Your task to perform on an android device: Search for "bose soundlink" on walmart, select the first entry, add it to the cart, then select checkout. Image 0: 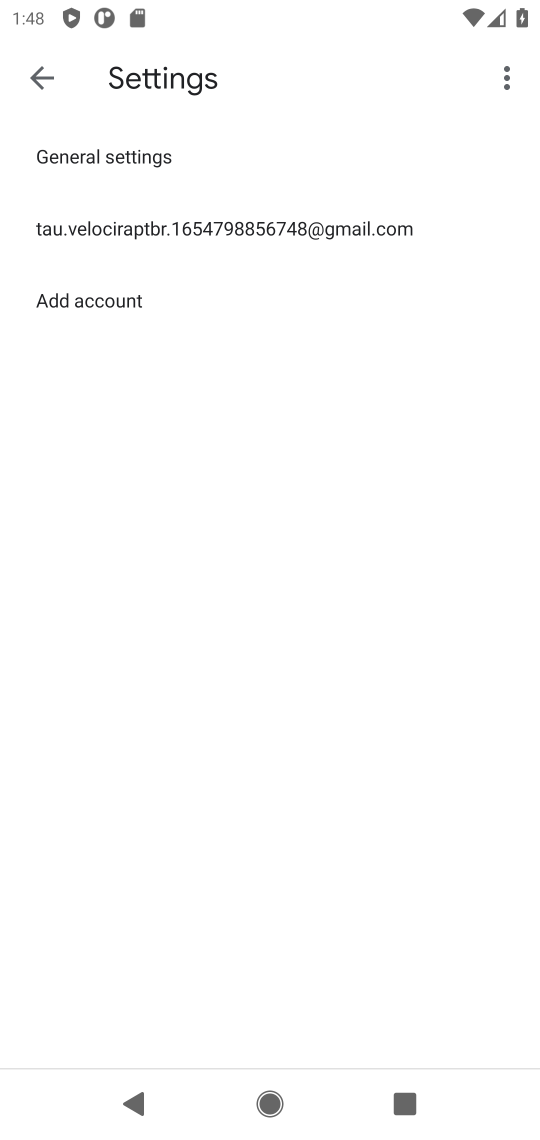
Step 0: press home button
Your task to perform on an android device: Search for "bose soundlink" on walmart, select the first entry, add it to the cart, then select checkout. Image 1: 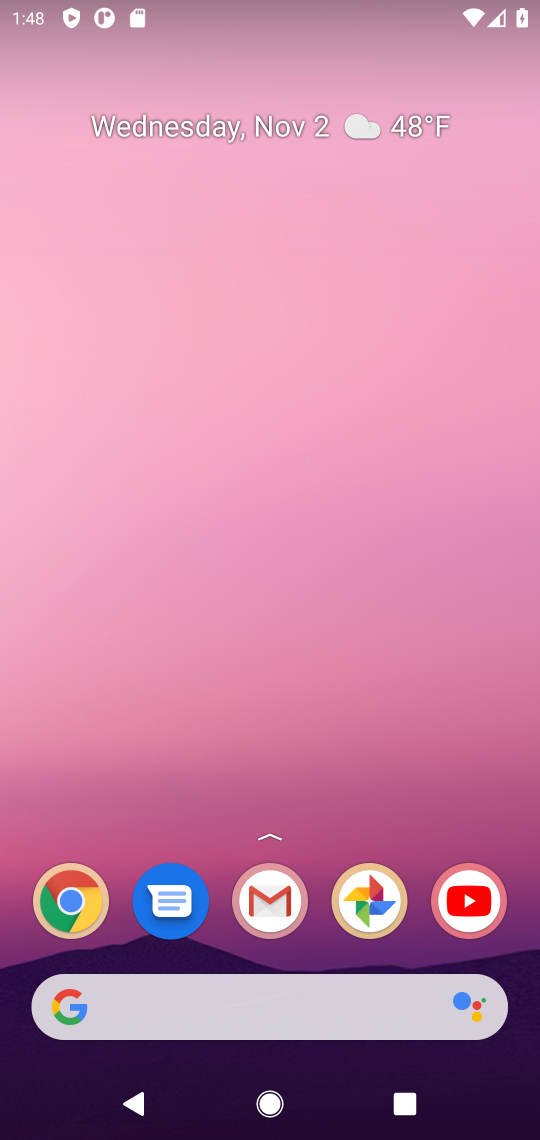
Step 1: drag from (323, 959) to (382, 126)
Your task to perform on an android device: Search for "bose soundlink" on walmart, select the first entry, add it to the cart, then select checkout. Image 2: 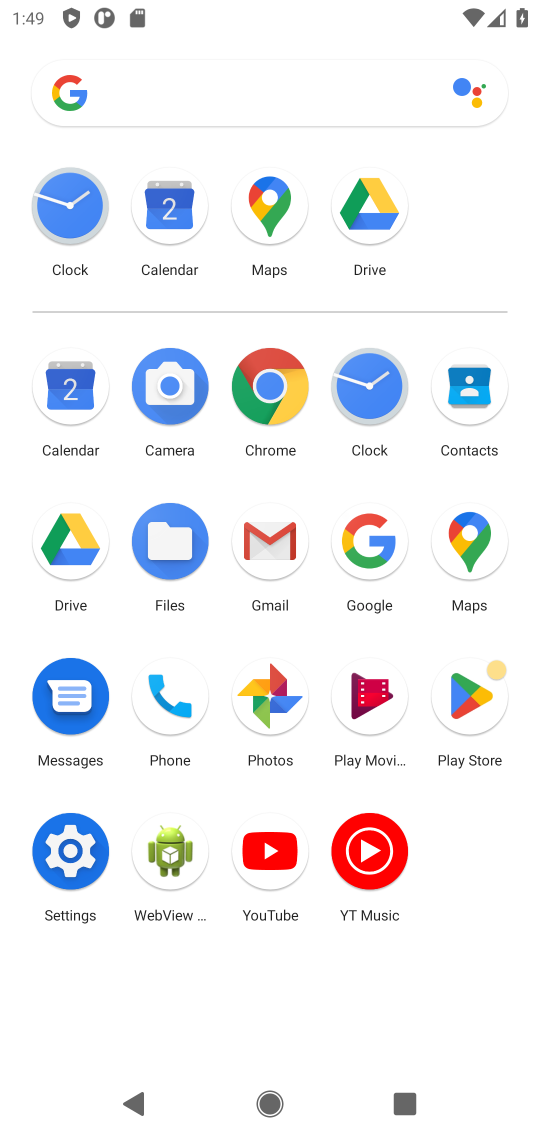
Step 2: click (275, 380)
Your task to perform on an android device: Search for "bose soundlink" on walmart, select the first entry, add it to the cart, then select checkout. Image 3: 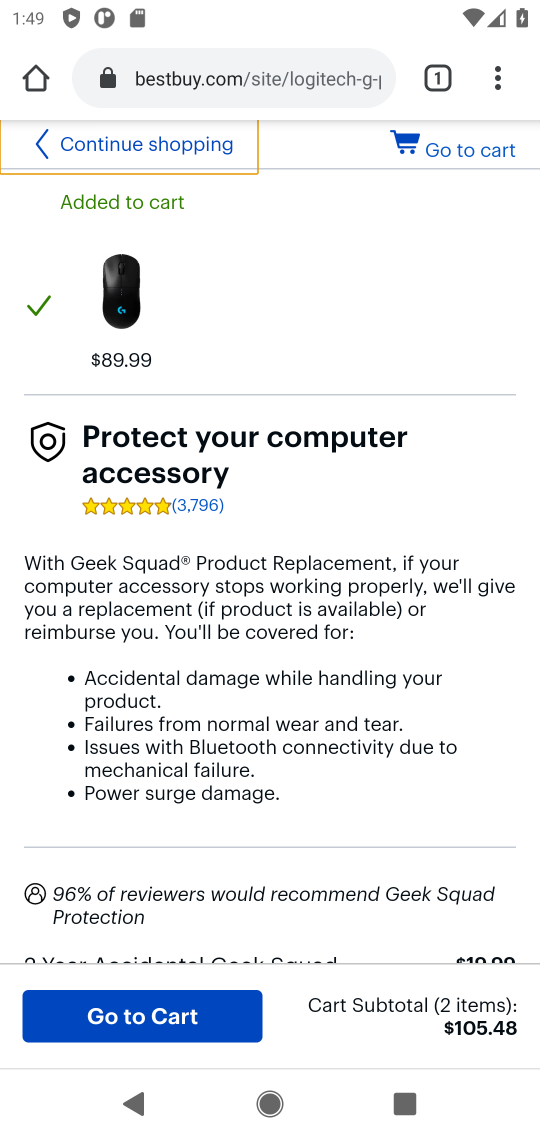
Step 3: click (262, 60)
Your task to perform on an android device: Search for "bose soundlink" on walmart, select the first entry, add it to the cart, then select checkout. Image 4: 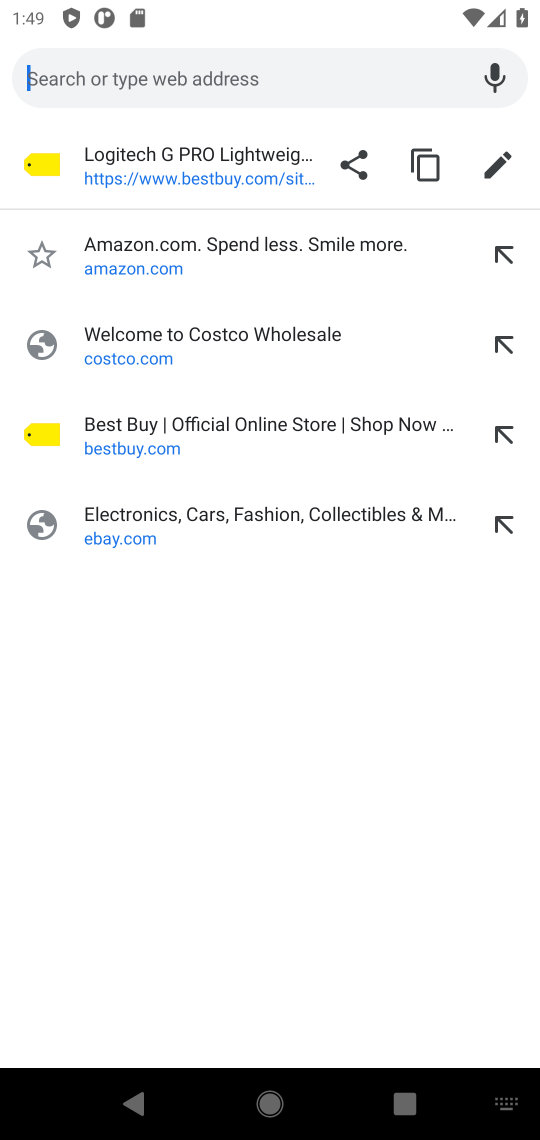
Step 4: type "walmart.com"
Your task to perform on an android device: Search for "bose soundlink" on walmart, select the first entry, add it to the cart, then select checkout. Image 5: 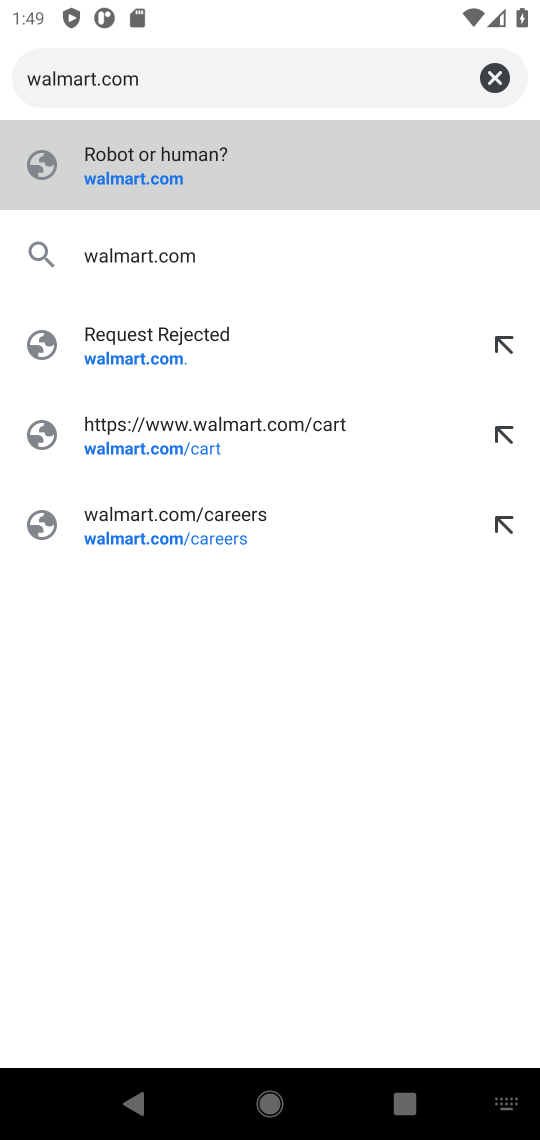
Step 5: press enter
Your task to perform on an android device: Search for "bose soundlink" on walmart, select the first entry, add it to the cart, then select checkout. Image 6: 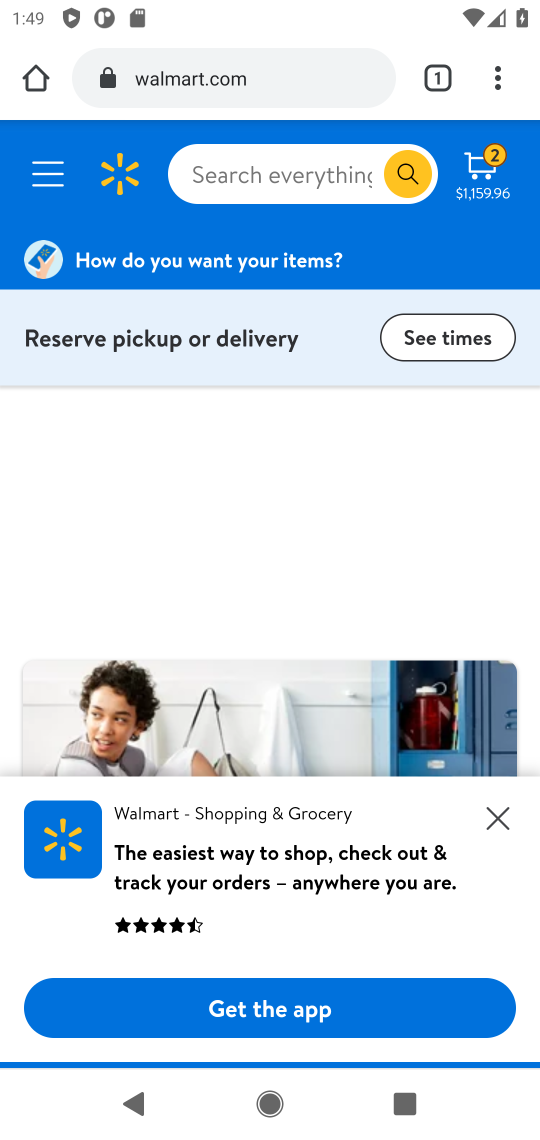
Step 6: drag from (359, 664) to (387, 156)
Your task to perform on an android device: Search for "bose soundlink" on walmart, select the first entry, add it to the cart, then select checkout. Image 7: 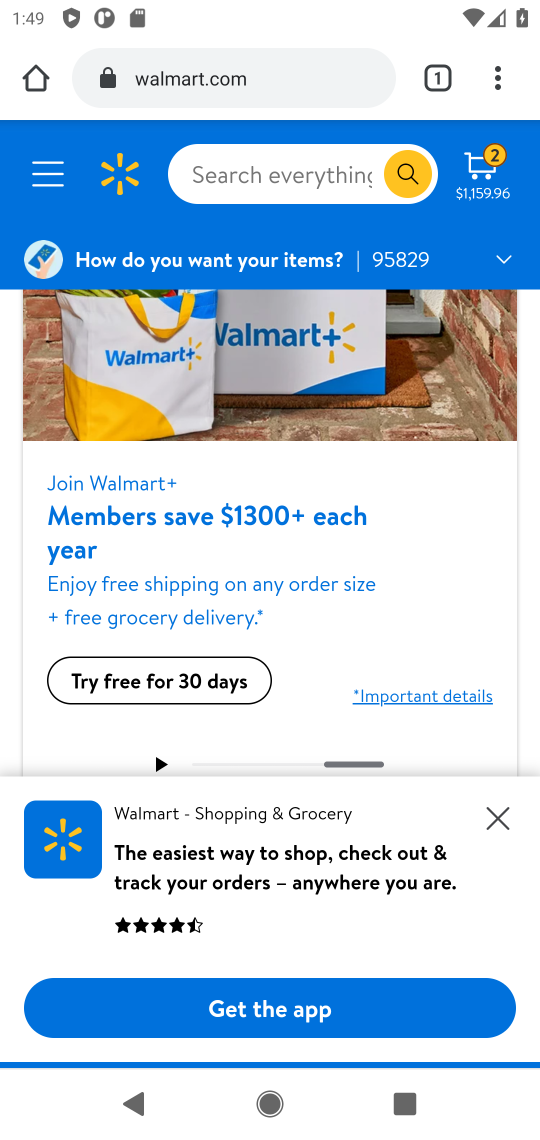
Step 7: click (296, 167)
Your task to perform on an android device: Search for "bose soundlink" on walmart, select the first entry, add it to the cart, then select checkout. Image 8: 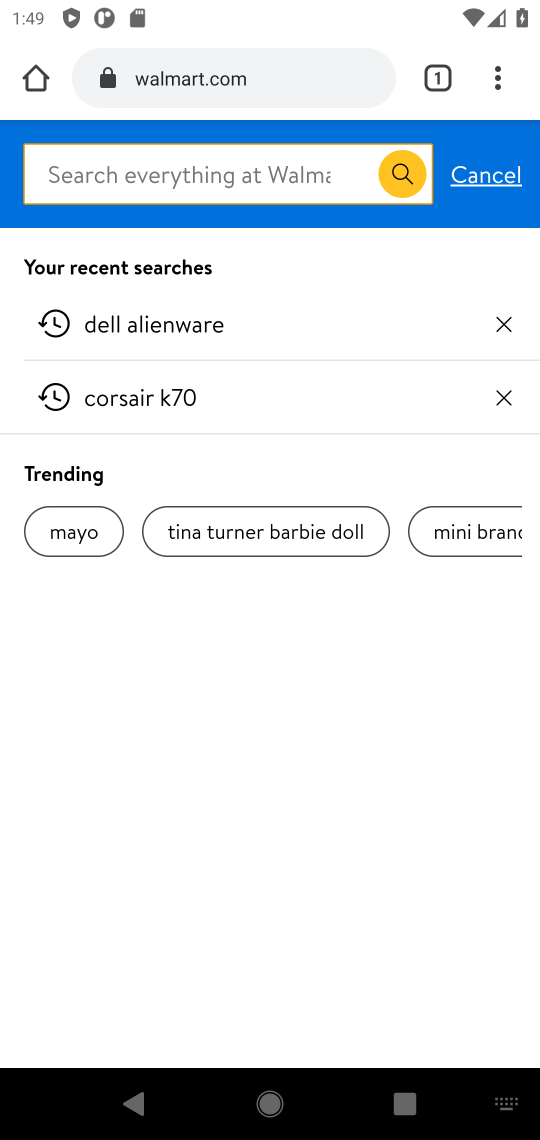
Step 8: type "bose soundlink"
Your task to perform on an android device: Search for "bose soundlink" on walmart, select the first entry, add it to the cart, then select checkout. Image 9: 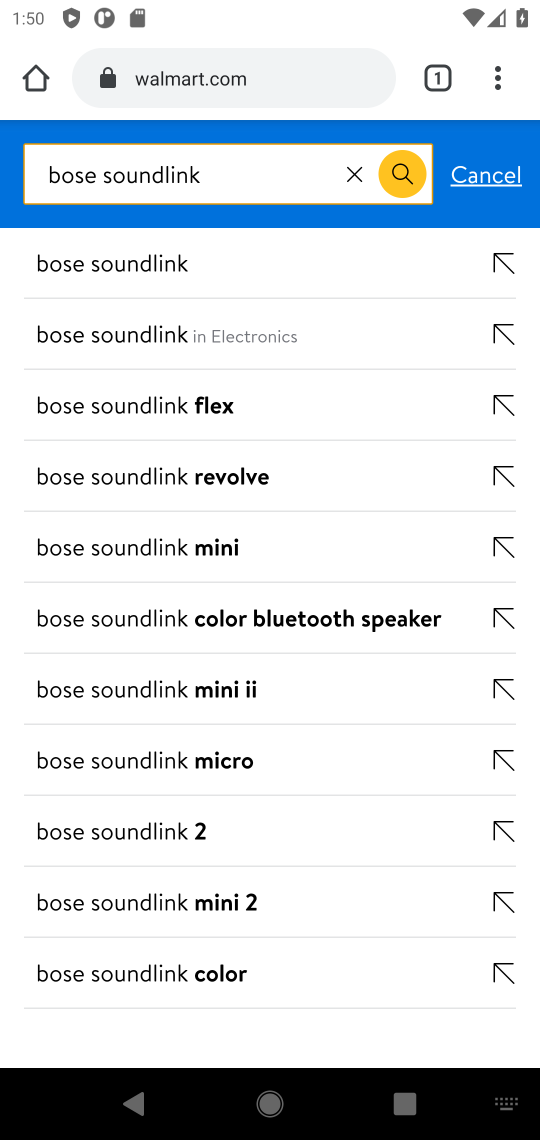
Step 9: press enter
Your task to perform on an android device: Search for "bose soundlink" on walmart, select the first entry, add it to the cart, then select checkout. Image 10: 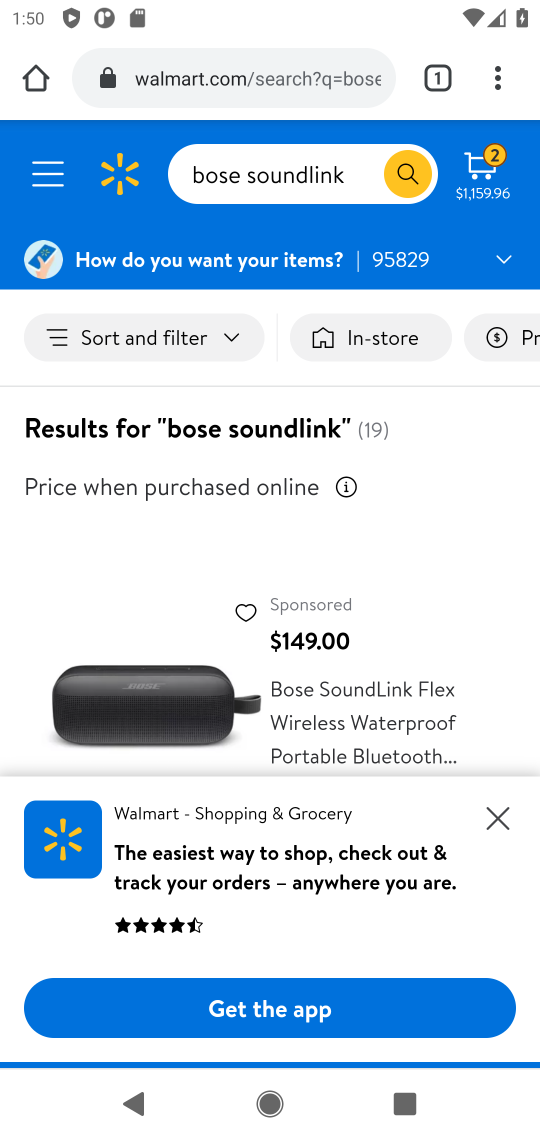
Step 10: drag from (391, 684) to (411, 139)
Your task to perform on an android device: Search for "bose soundlink" on walmart, select the first entry, add it to the cart, then select checkout. Image 11: 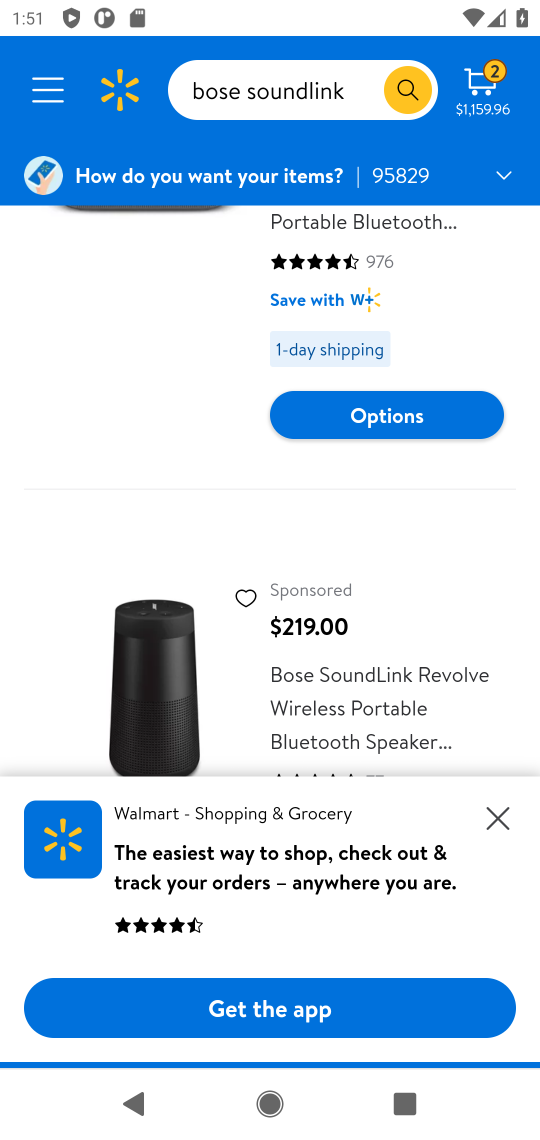
Step 11: drag from (180, 402) to (205, 650)
Your task to perform on an android device: Search for "bose soundlink" on walmart, select the first entry, add it to the cart, then select checkout. Image 12: 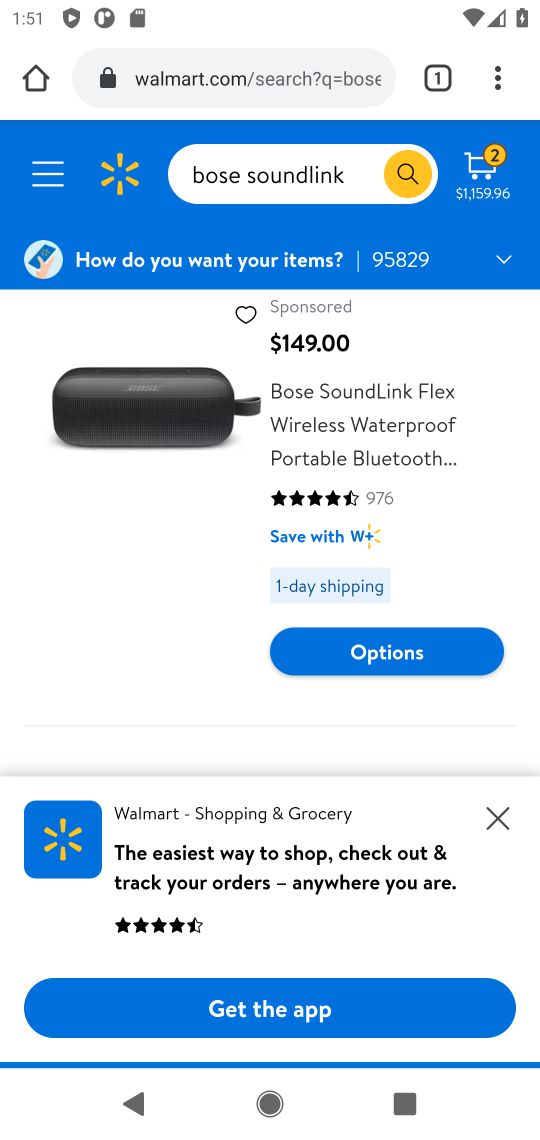
Step 12: click (365, 446)
Your task to perform on an android device: Search for "bose soundlink" on walmart, select the first entry, add it to the cart, then select checkout. Image 13: 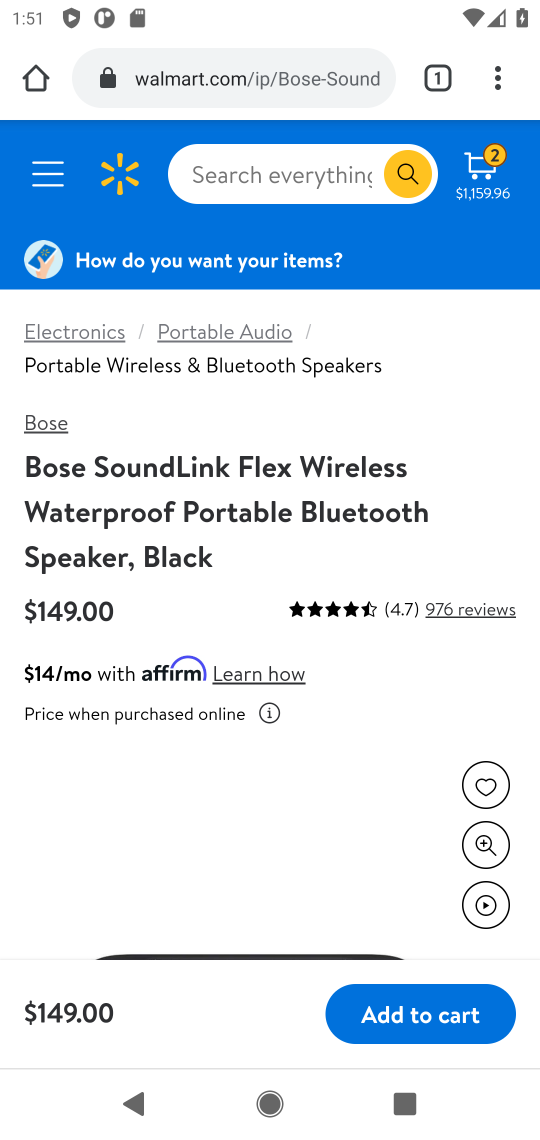
Step 13: drag from (163, 680) to (367, 322)
Your task to perform on an android device: Search for "bose soundlink" on walmart, select the first entry, add it to the cart, then select checkout. Image 14: 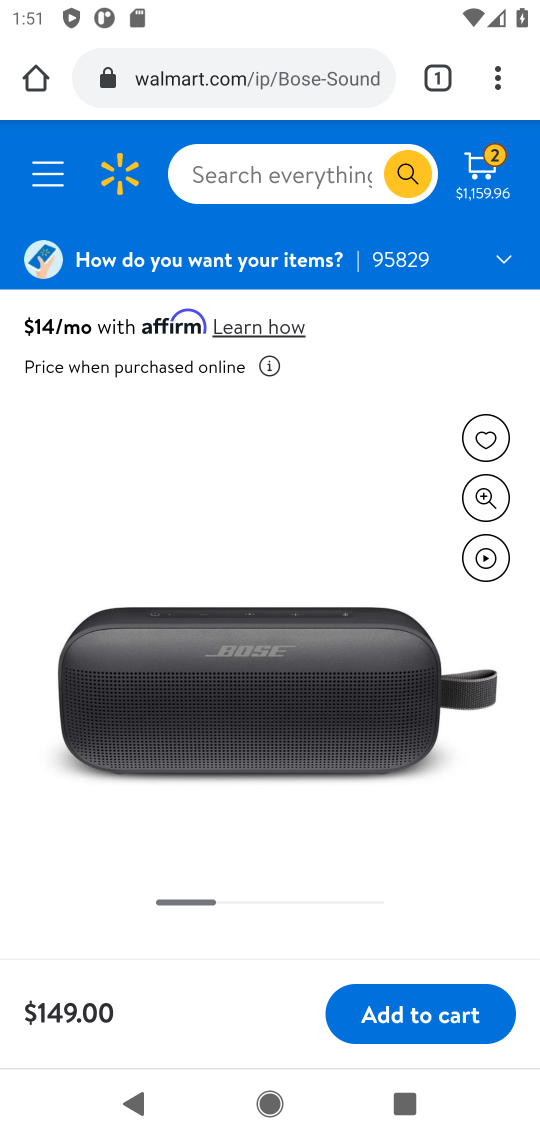
Step 14: drag from (287, 676) to (330, 325)
Your task to perform on an android device: Search for "bose soundlink" on walmart, select the first entry, add it to the cart, then select checkout. Image 15: 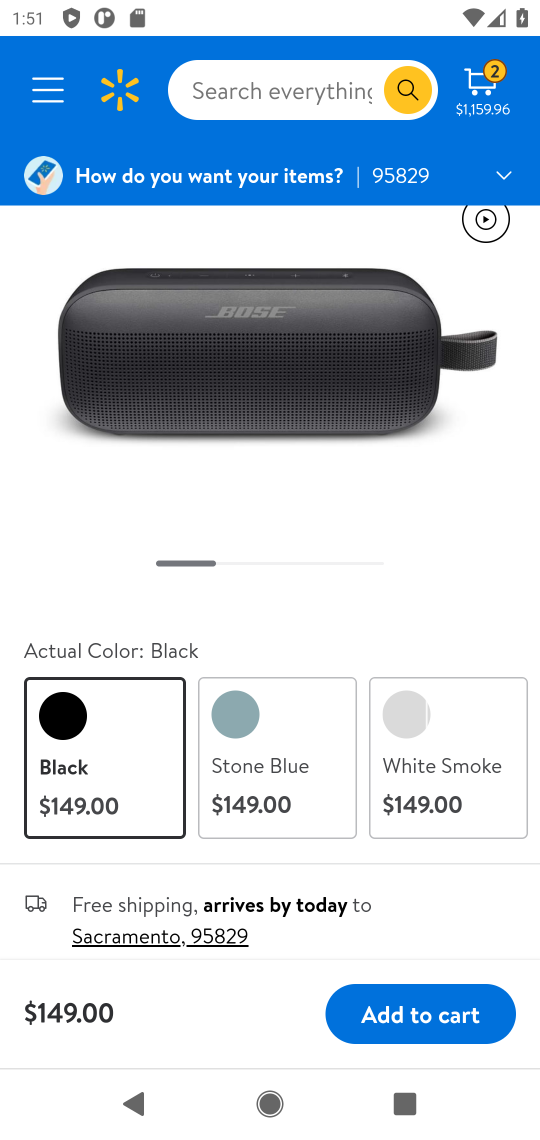
Step 15: drag from (204, 837) to (317, 370)
Your task to perform on an android device: Search for "bose soundlink" on walmart, select the first entry, add it to the cart, then select checkout. Image 16: 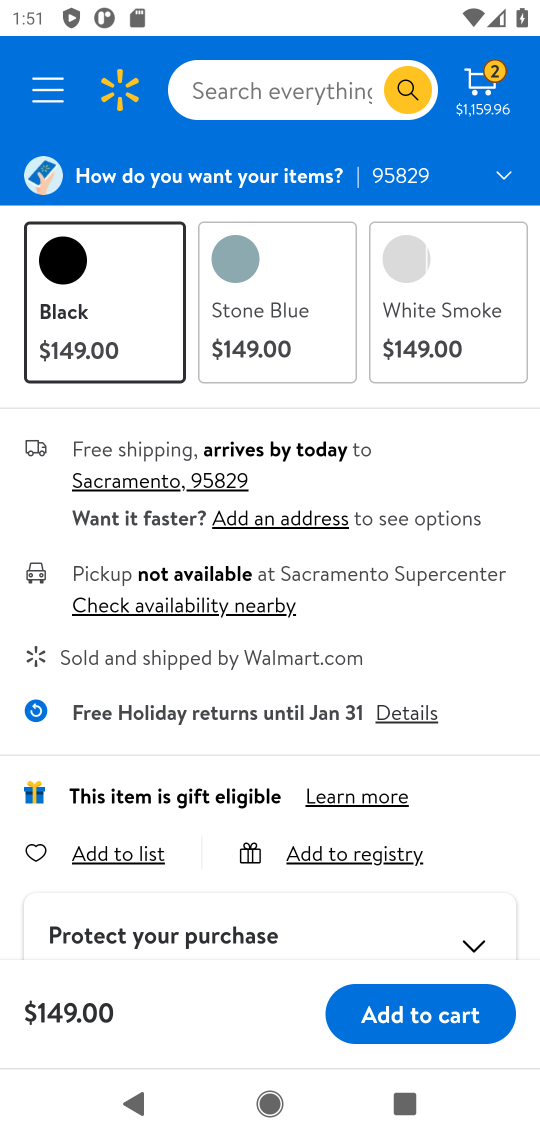
Step 16: click (443, 1003)
Your task to perform on an android device: Search for "bose soundlink" on walmart, select the first entry, add it to the cart, then select checkout. Image 17: 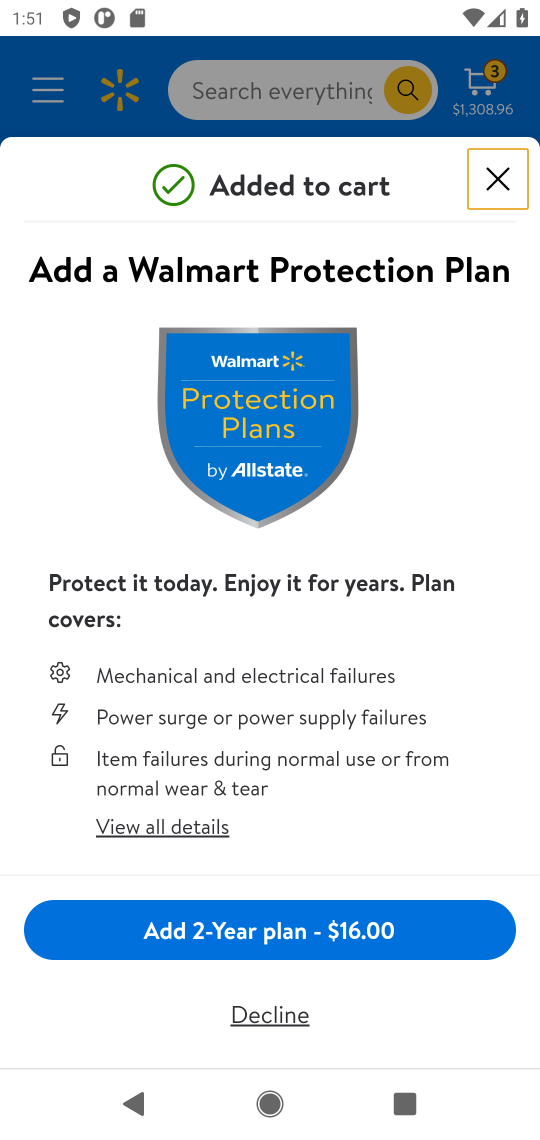
Step 17: click (257, 1016)
Your task to perform on an android device: Search for "bose soundlink" on walmart, select the first entry, add it to the cart, then select checkout. Image 18: 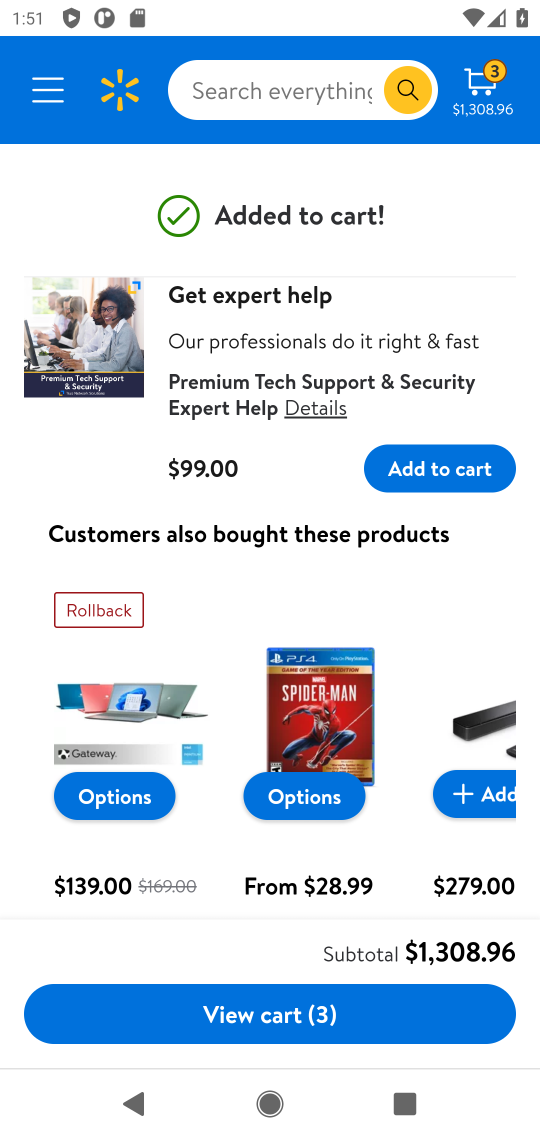
Step 18: click (379, 1030)
Your task to perform on an android device: Search for "bose soundlink" on walmart, select the first entry, add it to the cart, then select checkout. Image 19: 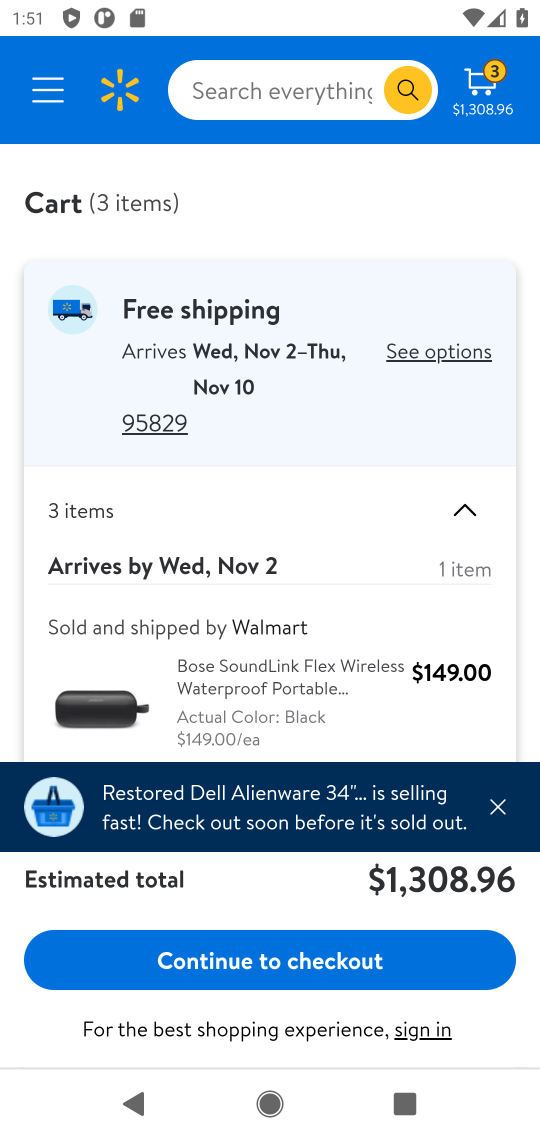
Step 19: click (343, 983)
Your task to perform on an android device: Search for "bose soundlink" on walmart, select the first entry, add it to the cart, then select checkout. Image 20: 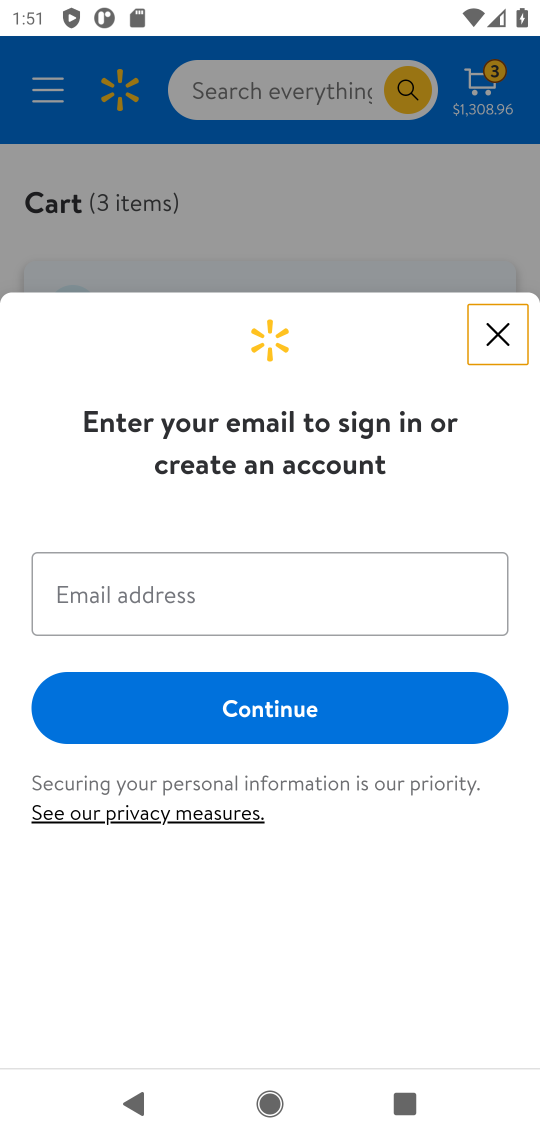
Step 20: task complete